Your task to perform on an android device: turn on bluetooth scan Image 0: 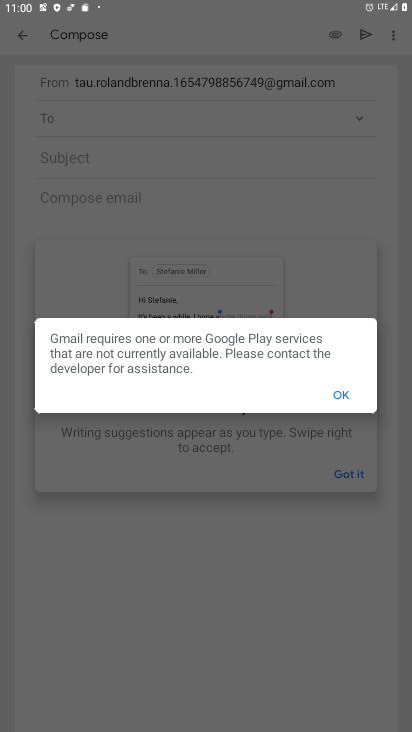
Step 0: press home button
Your task to perform on an android device: turn on bluetooth scan Image 1: 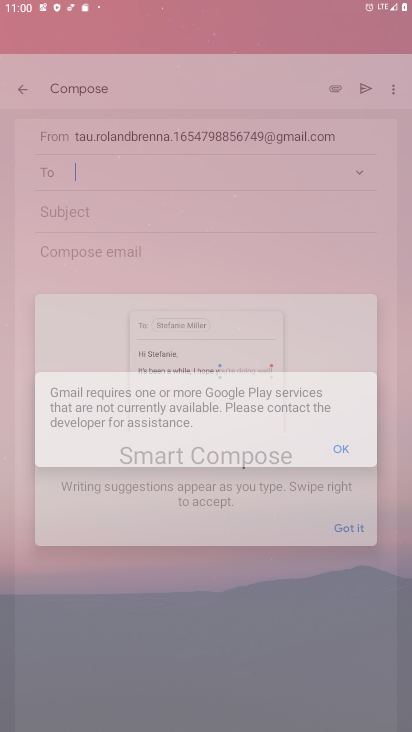
Step 1: drag from (224, 609) to (250, 79)
Your task to perform on an android device: turn on bluetooth scan Image 2: 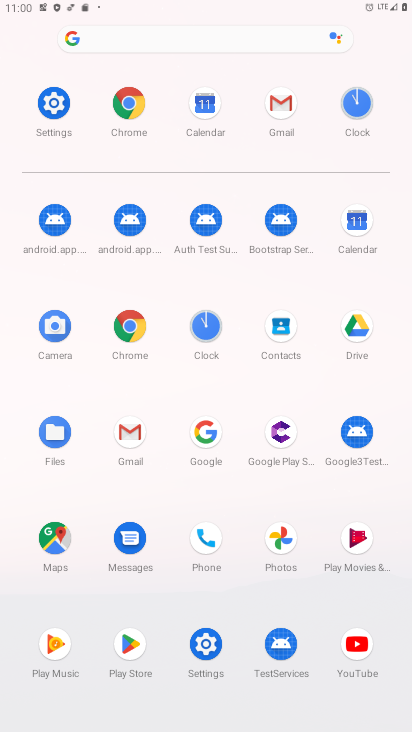
Step 2: click (199, 639)
Your task to perform on an android device: turn on bluetooth scan Image 3: 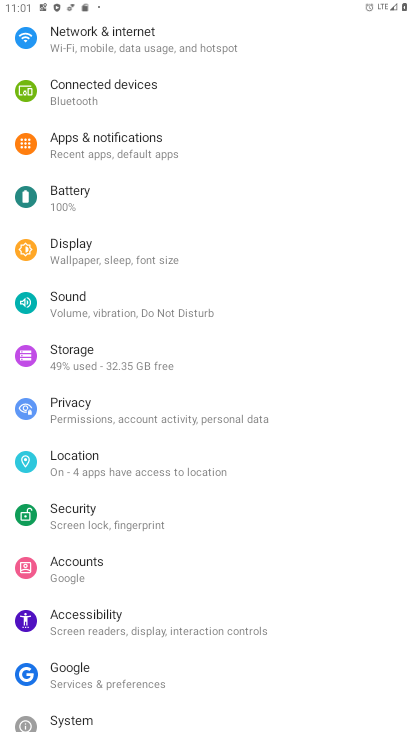
Step 3: click (102, 467)
Your task to perform on an android device: turn on bluetooth scan Image 4: 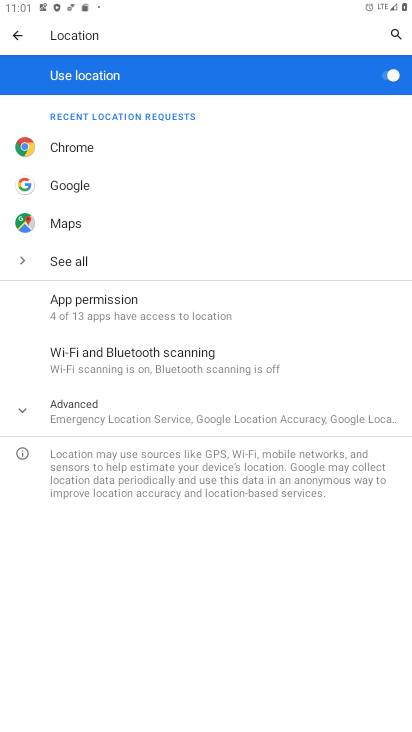
Step 4: drag from (57, 613) to (177, 270)
Your task to perform on an android device: turn on bluetooth scan Image 5: 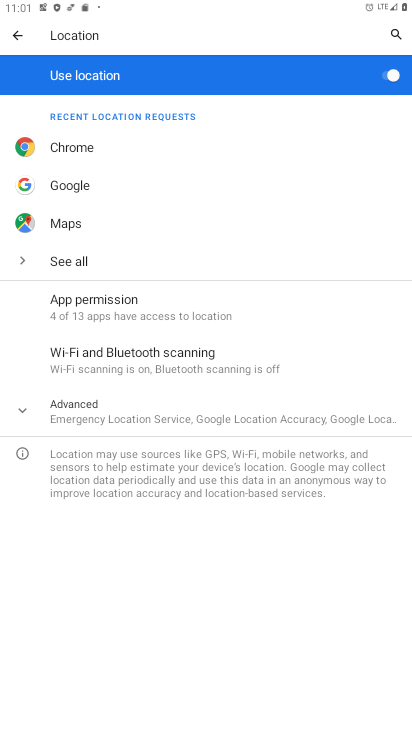
Step 5: click (155, 360)
Your task to perform on an android device: turn on bluetooth scan Image 6: 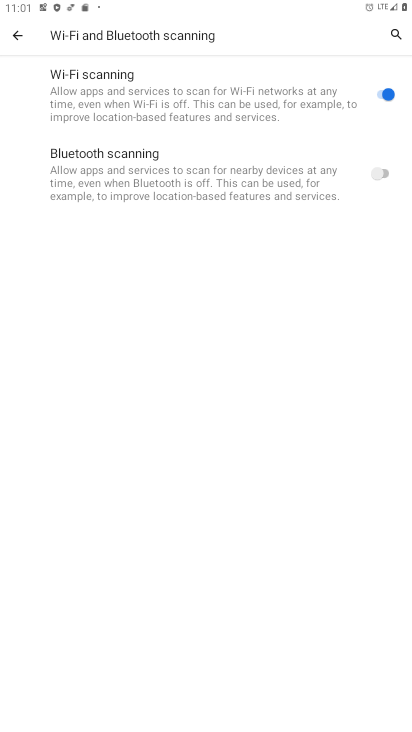
Step 6: click (312, 173)
Your task to perform on an android device: turn on bluetooth scan Image 7: 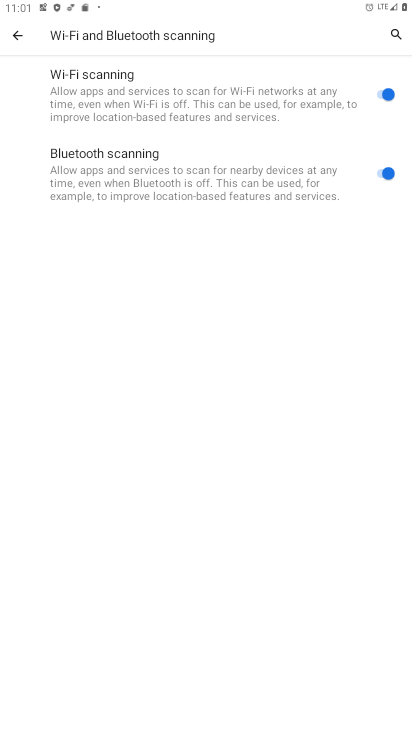
Step 7: task complete